Your task to perform on an android device: Open location settings Image 0: 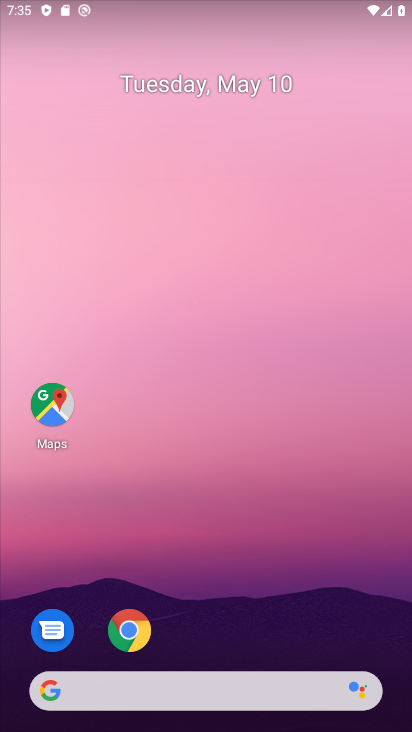
Step 0: drag from (253, 628) to (295, 326)
Your task to perform on an android device: Open location settings Image 1: 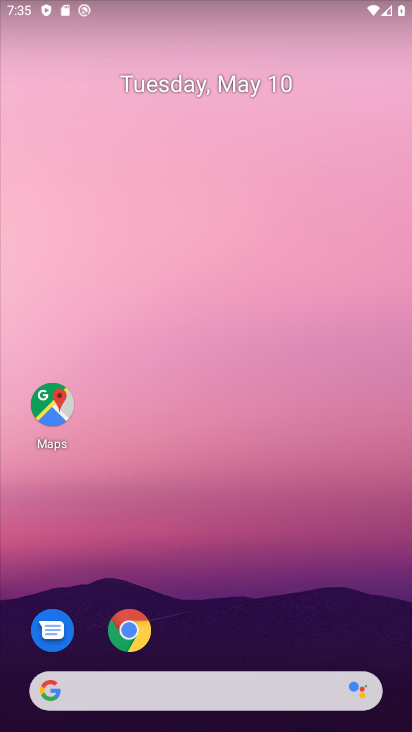
Step 1: drag from (195, 718) to (38, 214)
Your task to perform on an android device: Open location settings Image 2: 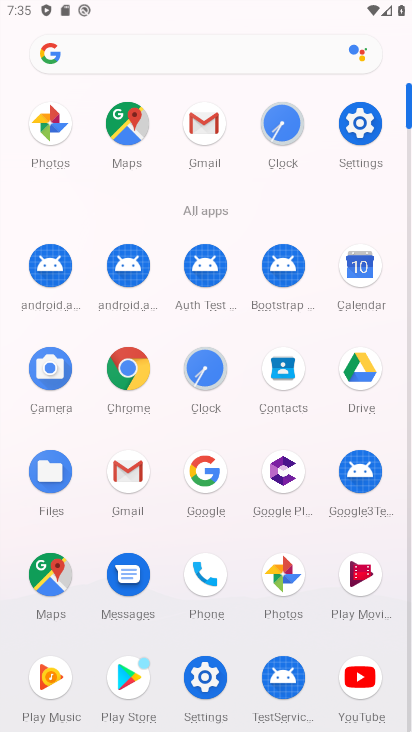
Step 2: click (366, 124)
Your task to perform on an android device: Open location settings Image 3: 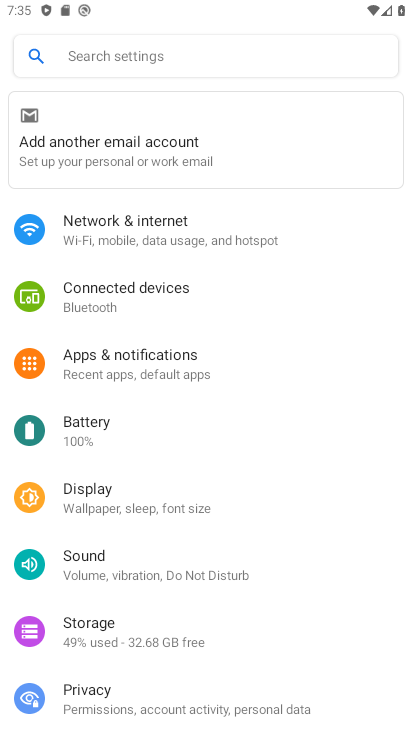
Step 3: drag from (245, 596) to (235, 179)
Your task to perform on an android device: Open location settings Image 4: 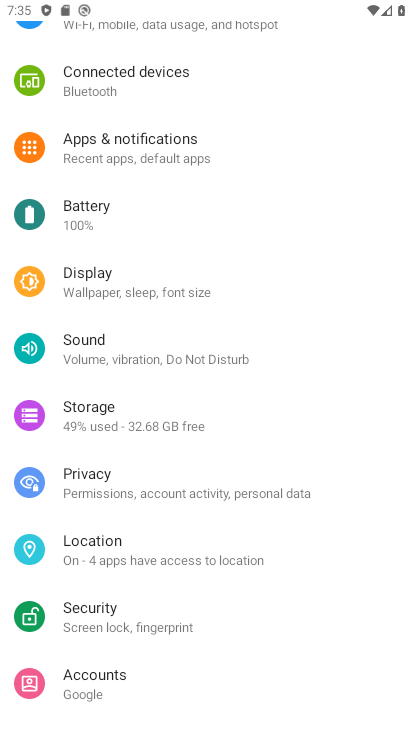
Step 4: click (122, 561)
Your task to perform on an android device: Open location settings Image 5: 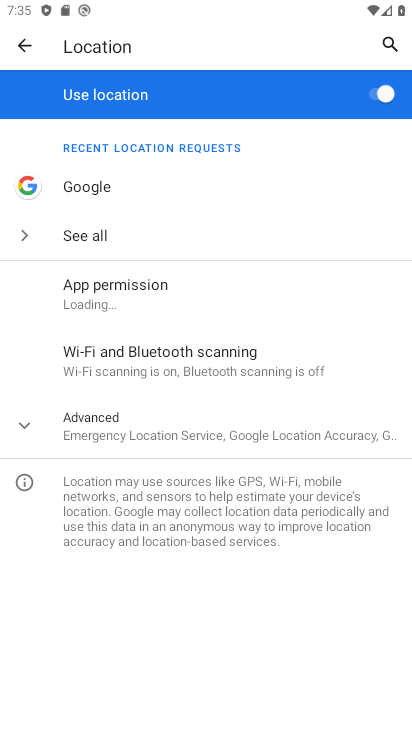
Step 5: task complete